Your task to perform on an android device: Go to battery settings Image 0: 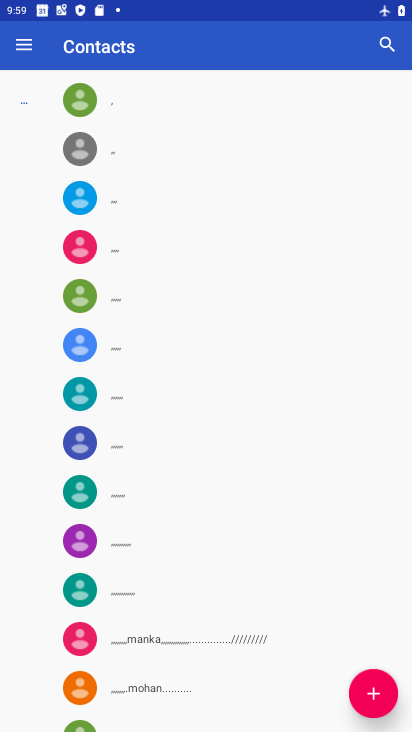
Step 0: press home button
Your task to perform on an android device: Go to battery settings Image 1: 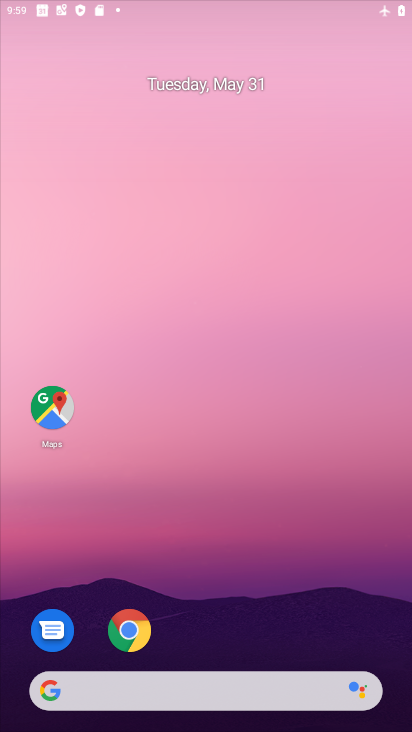
Step 1: drag from (190, 640) to (189, 228)
Your task to perform on an android device: Go to battery settings Image 2: 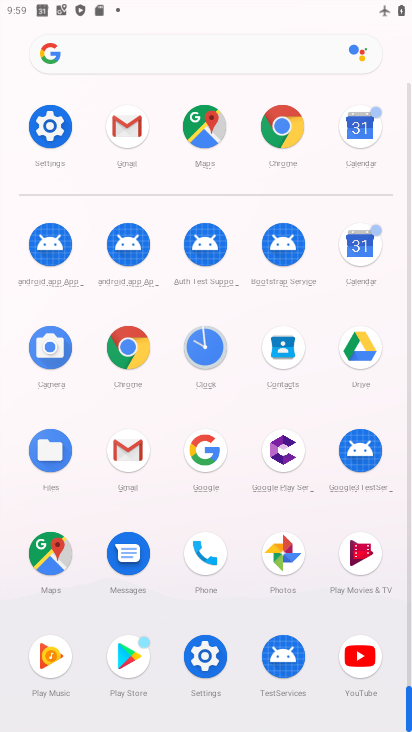
Step 2: click (35, 121)
Your task to perform on an android device: Go to battery settings Image 3: 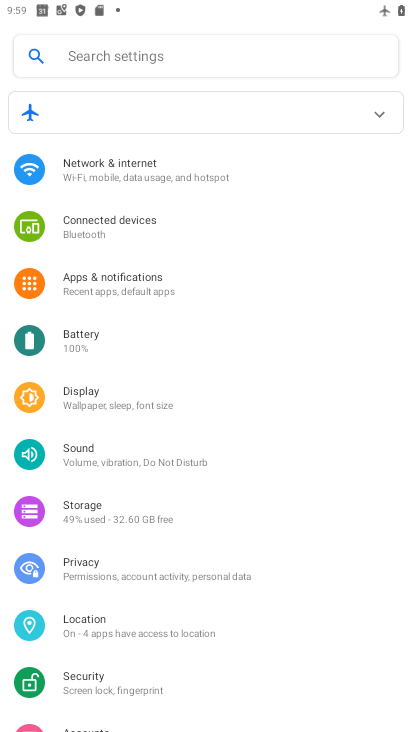
Step 3: click (115, 331)
Your task to perform on an android device: Go to battery settings Image 4: 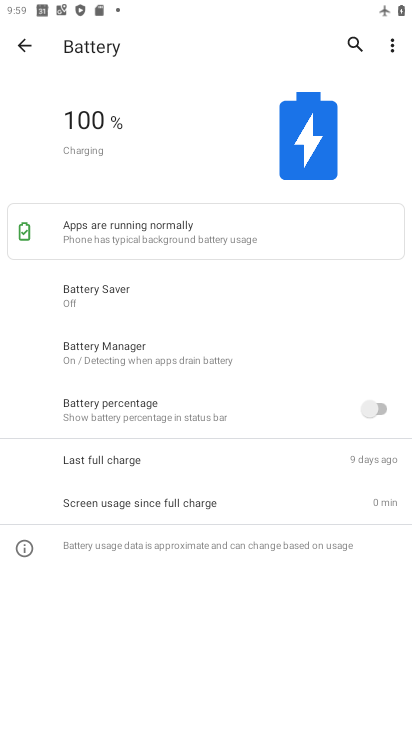
Step 4: task complete